Your task to perform on an android device: Open settings on Google Maps Image 0: 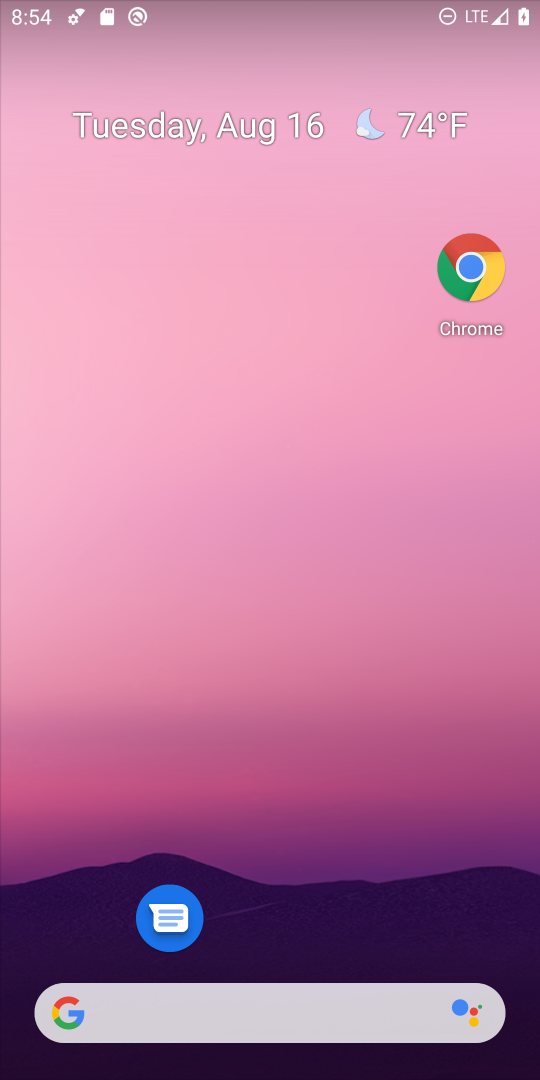
Step 0: drag from (276, 841) to (261, 167)
Your task to perform on an android device: Open settings on Google Maps Image 1: 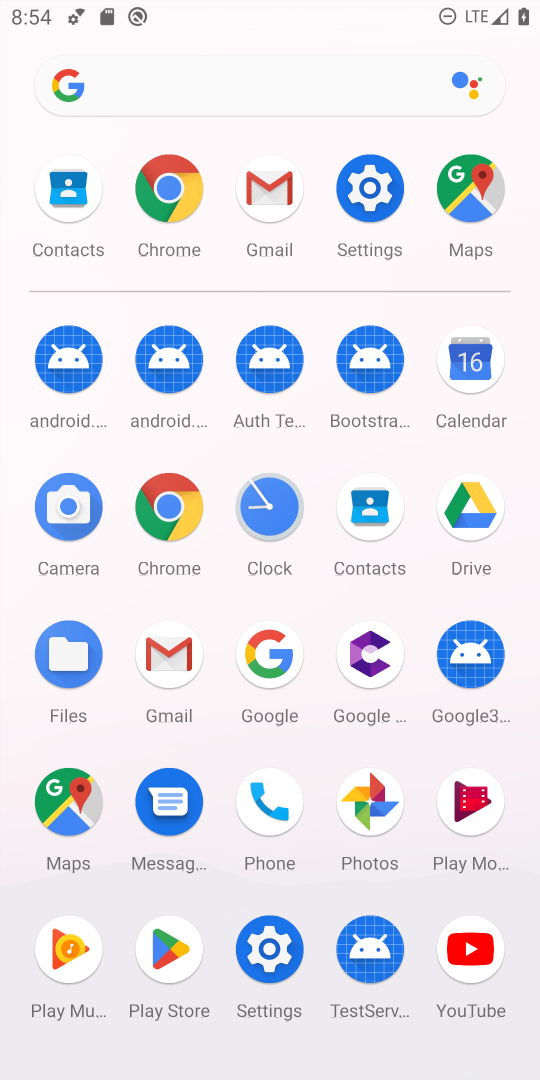
Step 1: click (82, 814)
Your task to perform on an android device: Open settings on Google Maps Image 2: 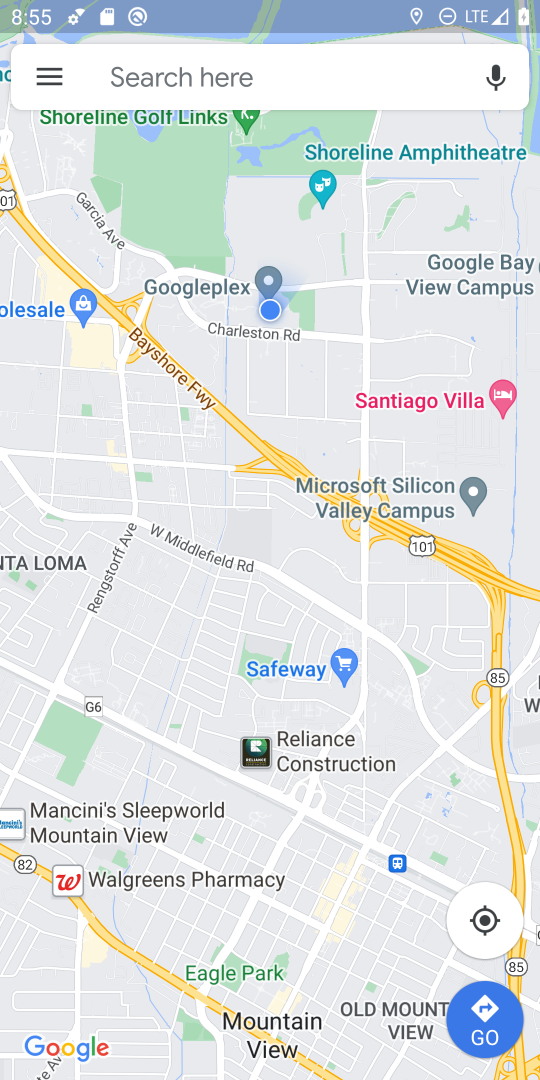
Step 2: click (53, 67)
Your task to perform on an android device: Open settings on Google Maps Image 3: 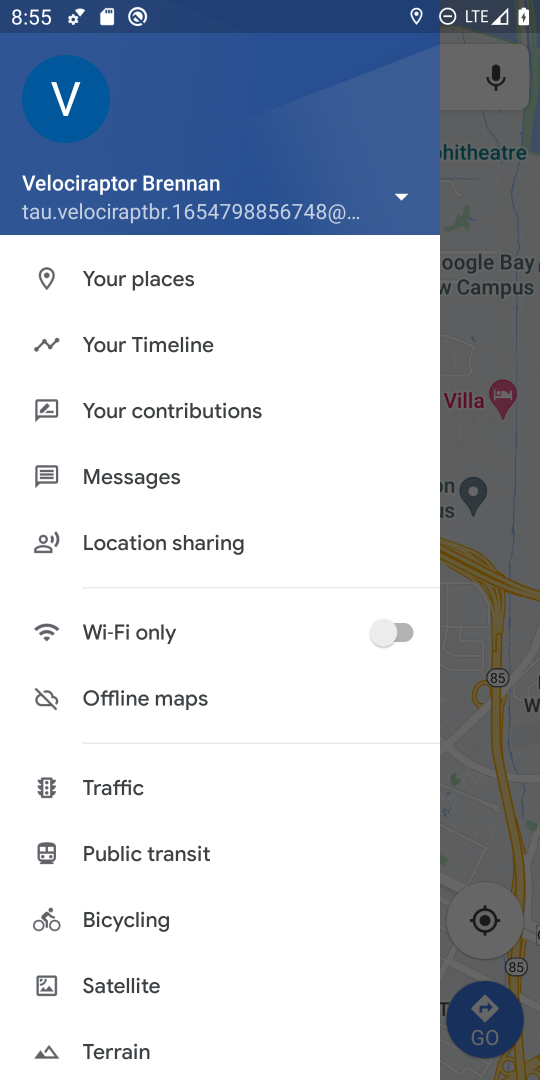
Step 3: drag from (155, 939) to (247, 392)
Your task to perform on an android device: Open settings on Google Maps Image 4: 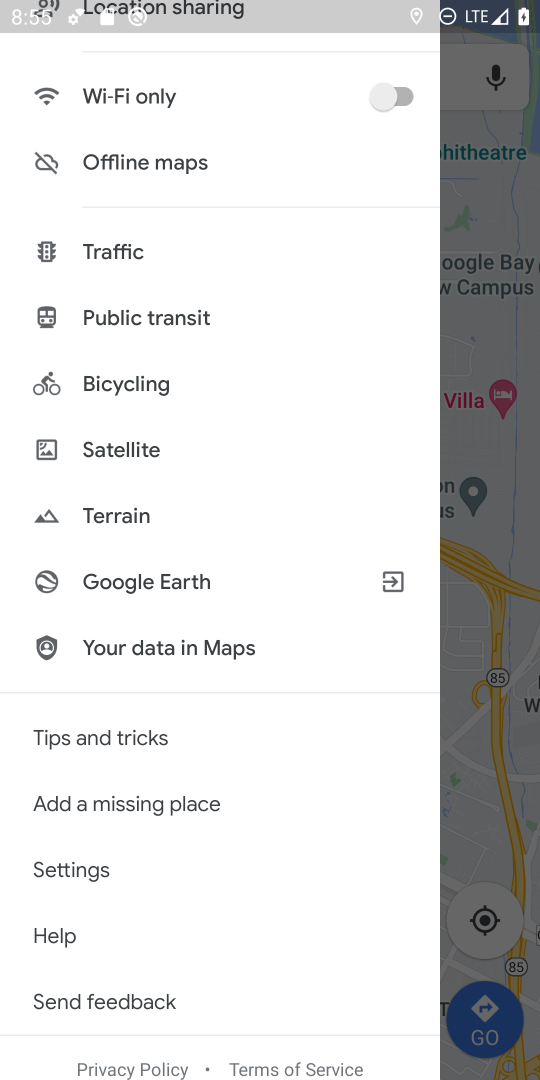
Step 4: click (80, 881)
Your task to perform on an android device: Open settings on Google Maps Image 5: 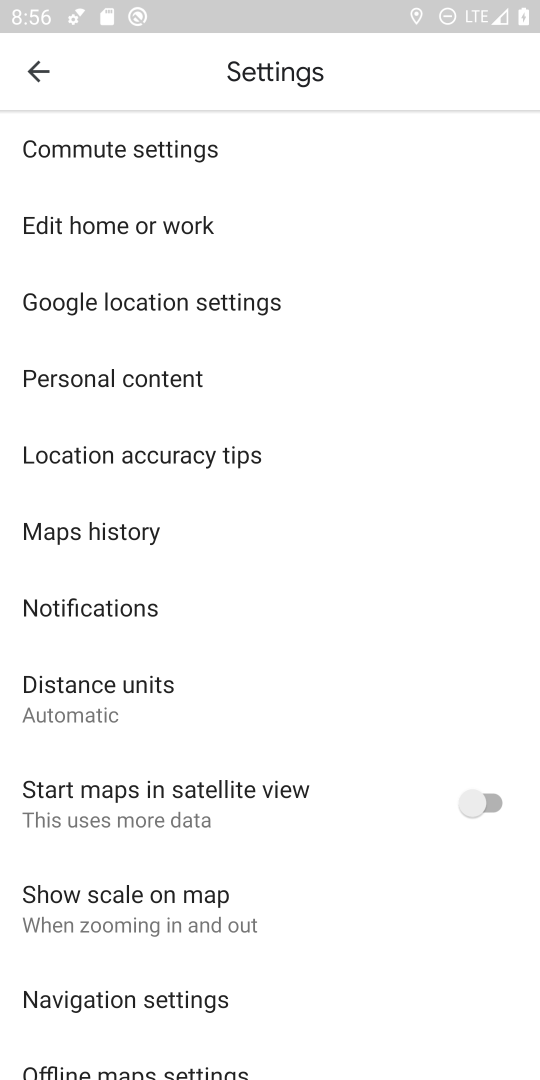
Step 5: task complete